Your task to perform on an android device: turn off airplane mode Image 0: 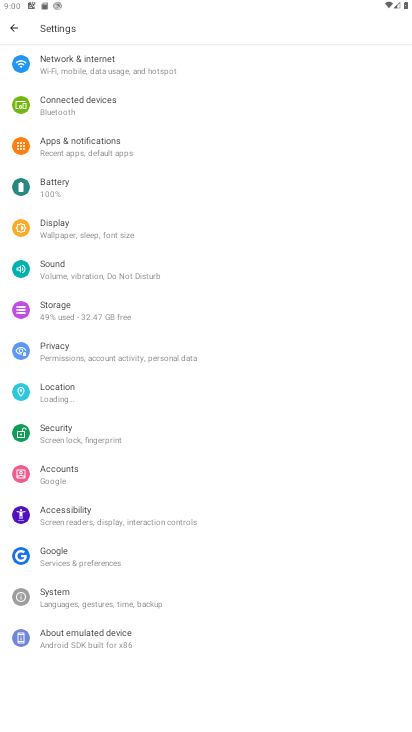
Step 0: click (90, 64)
Your task to perform on an android device: turn off airplane mode Image 1: 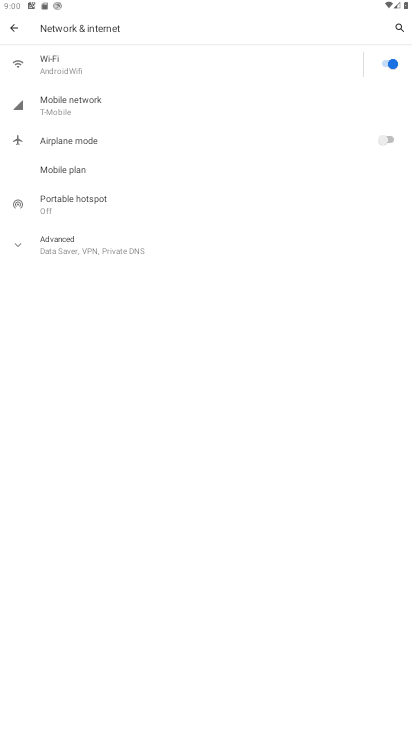
Step 1: task complete